Your task to perform on an android device: Open network settings Image 0: 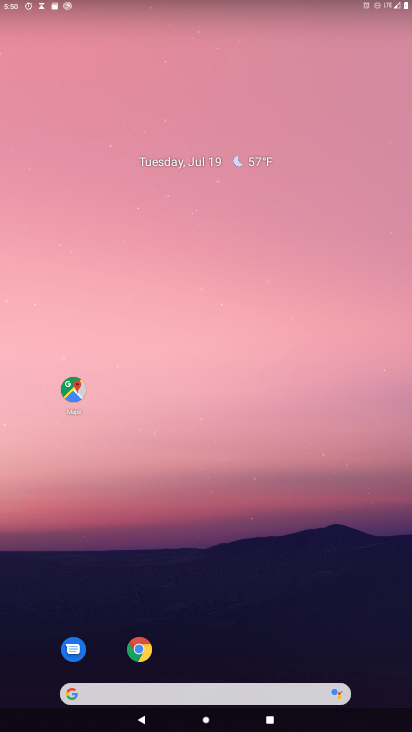
Step 0: click (185, 237)
Your task to perform on an android device: Open network settings Image 1: 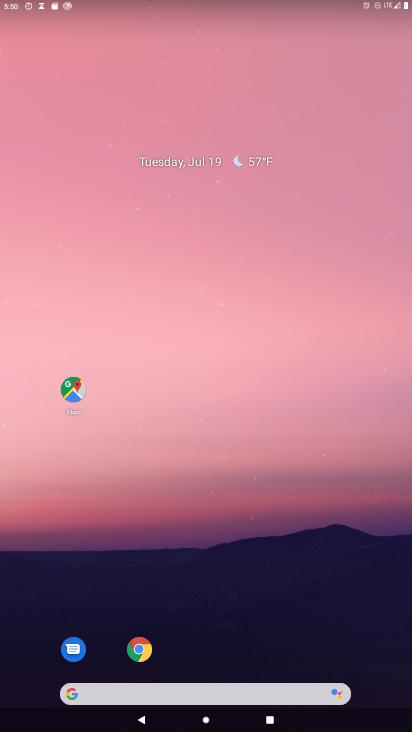
Step 1: drag from (203, 622) to (202, 57)
Your task to perform on an android device: Open network settings Image 2: 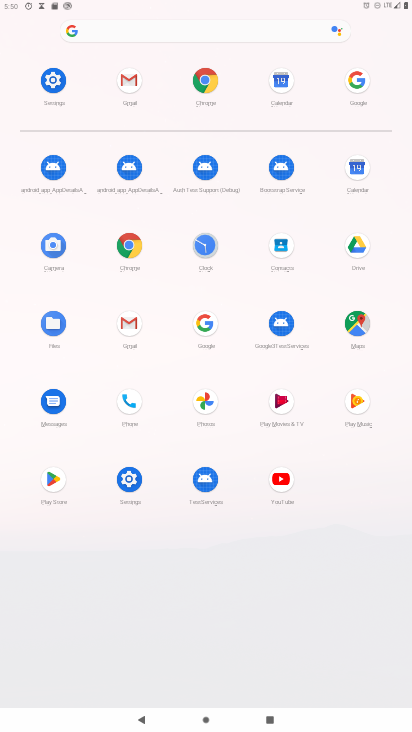
Step 2: click (57, 83)
Your task to perform on an android device: Open network settings Image 3: 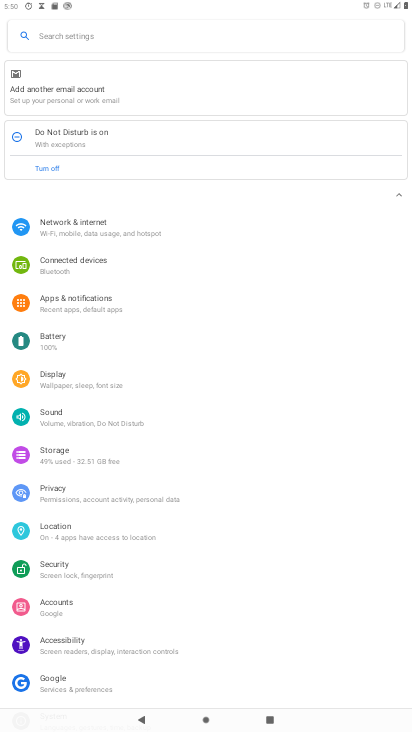
Step 3: click (73, 229)
Your task to perform on an android device: Open network settings Image 4: 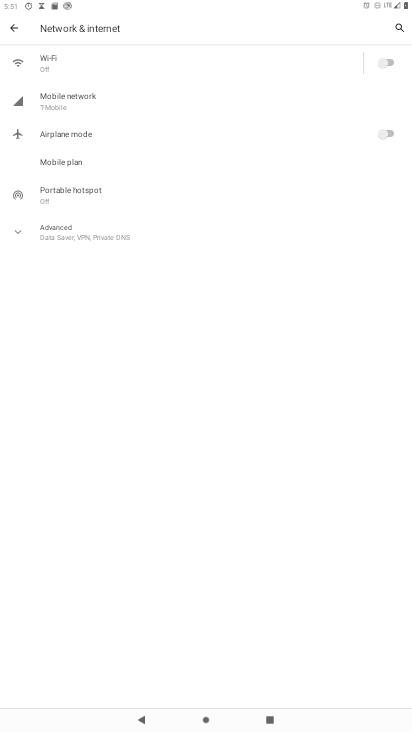
Step 4: task complete